Your task to perform on an android device: see sites visited before in the chrome app Image 0: 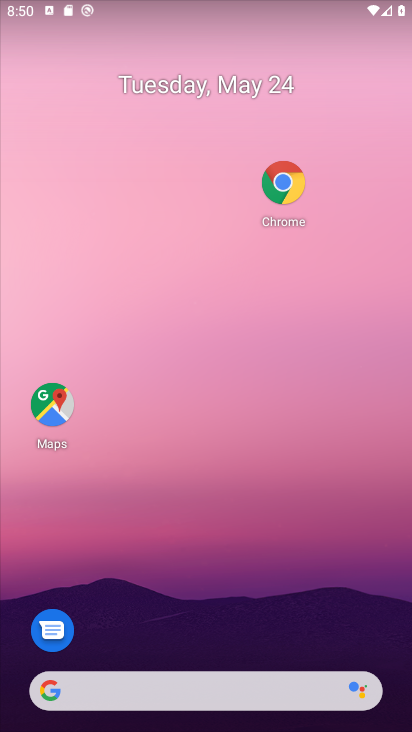
Step 0: press home button
Your task to perform on an android device: see sites visited before in the chrome app Image 1: 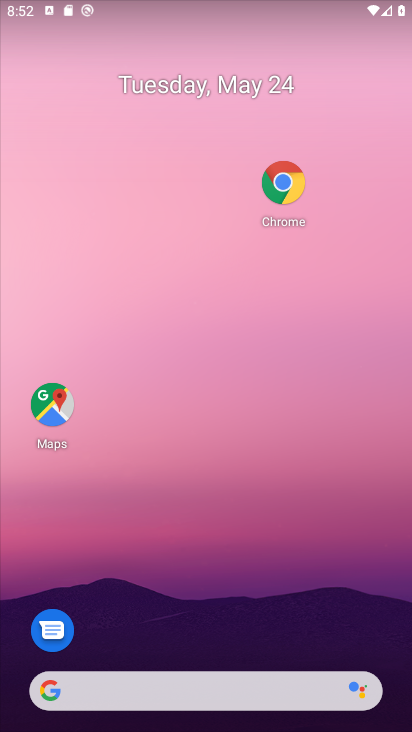
Step 1: click (288, 186)
Your task to perform on an android device: see sites visited before in the chrome app Image 2: 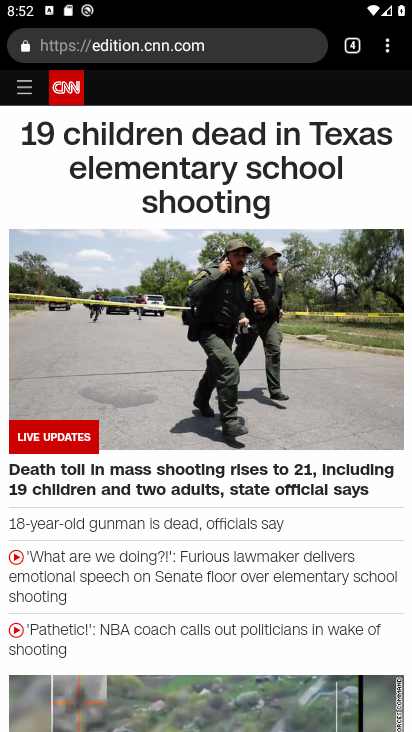
Step 2: click (387, 46)
Your task to perform on an android device: see sites visited before in the chrome app Image 3: 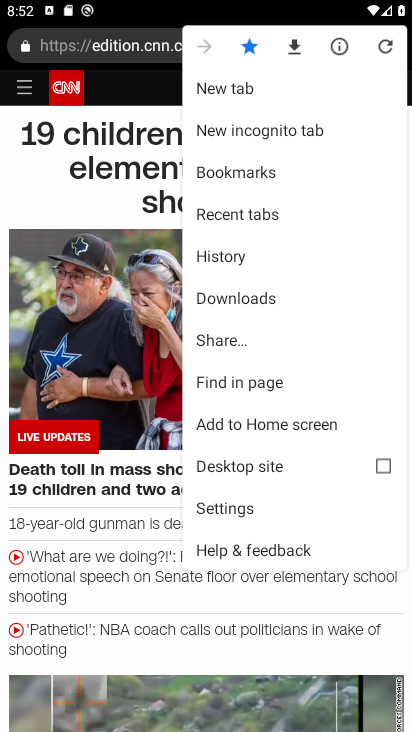
Step 3: click (225, 502)
Your task to perform on an android device: see sites visited before in the chrome app Image 4: 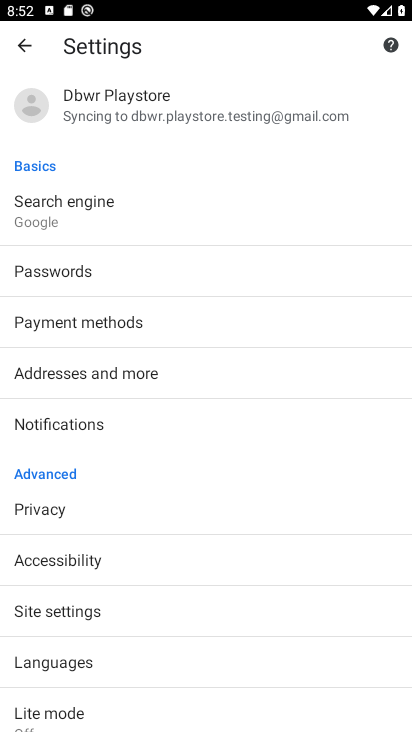
Step 4: click (72, 607)
Your task to perform on an android device: see sites visited before in the chrome app Image 5: 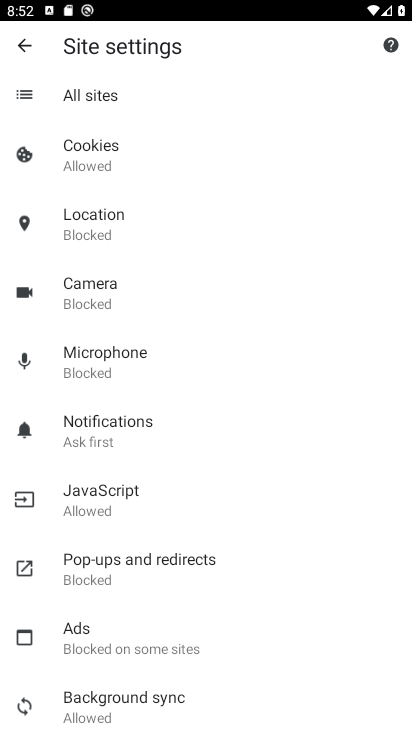
Step 5: click (106, 108)
Your task to perform on an android device: see sites visited before in the chrome app Image 6: 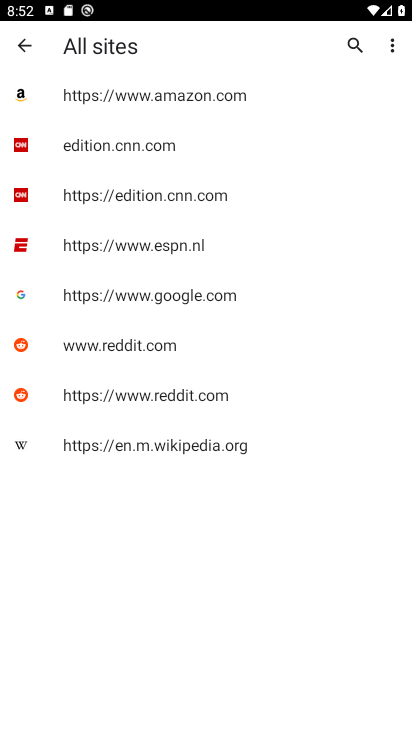
Step 6: task complete